Your task to perform on an android device: clear all cookies in the chrome app Image 0: 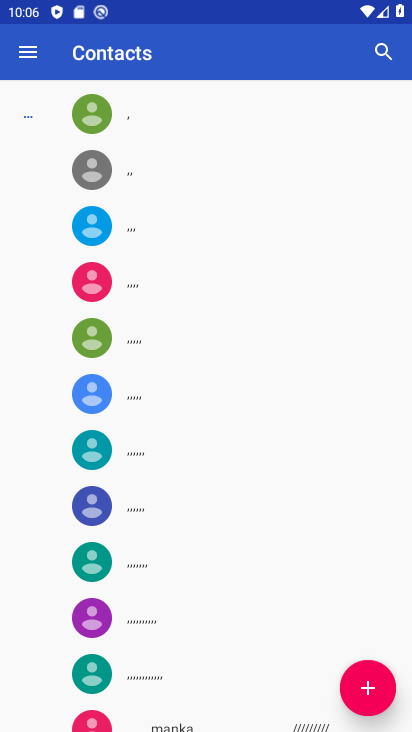
Step 0: press home button
Your task to perform on an android device: clear all cookies in the chrome app Image 1: 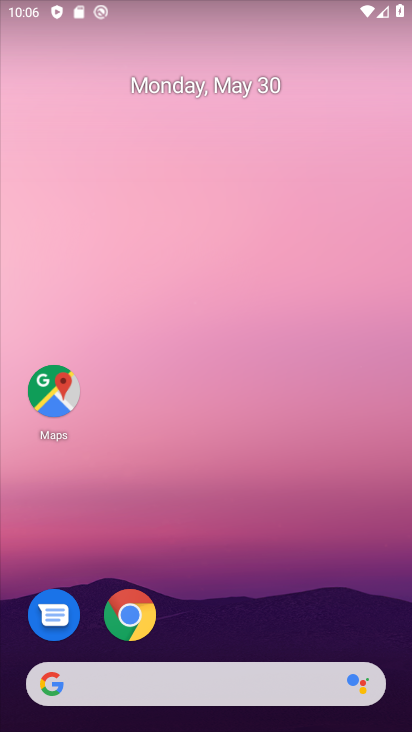
Step 1: click (127, 613)
Your task to perform on an android device: clear all cookies in the chrome app Image 2: 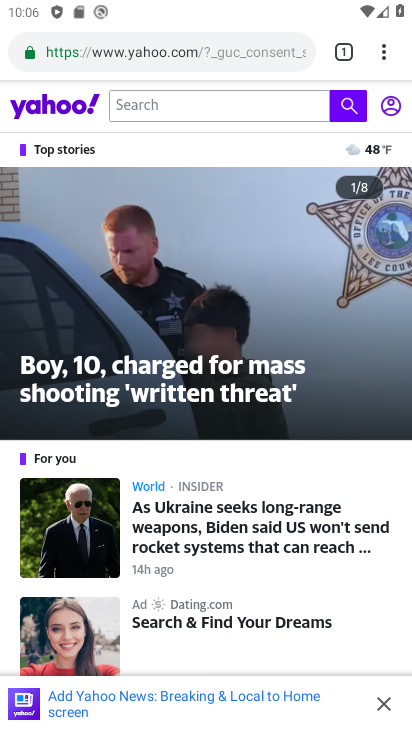
Step 2: click (383, 58)
Your task to perform on an android device: clear all cookies in the chrome app Image 3: 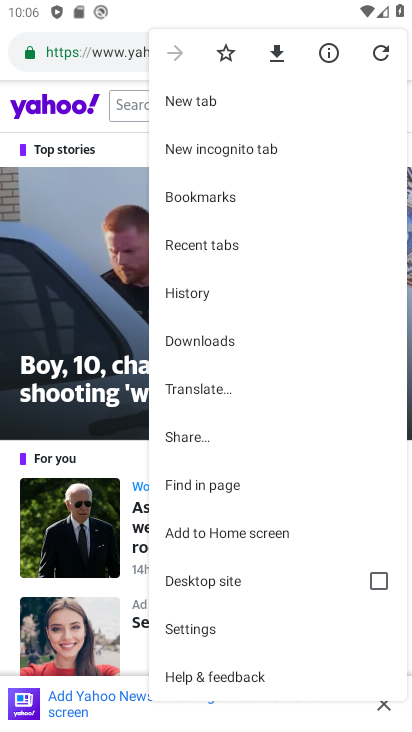
Step 3: click (193, 291)
Your task to perform on an android device: clear all cookies in the chrome app Image 4: 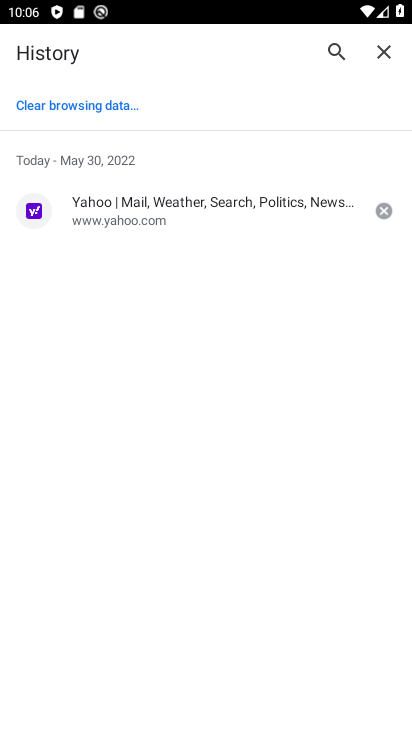
Step 4: click (89, 100)
Your task to perform on an android device: clear all cookies in the chrome app Image 5: 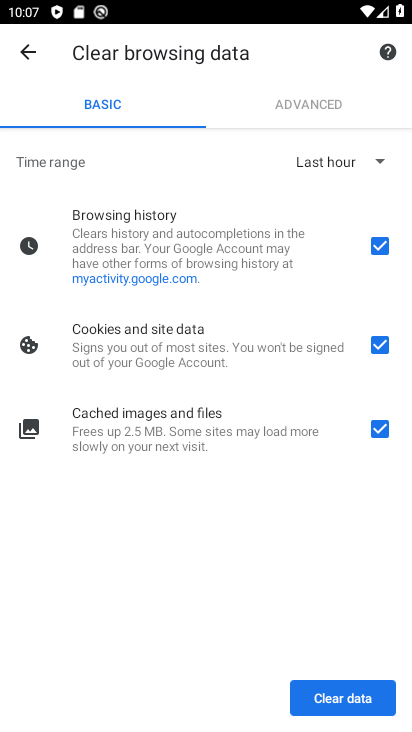
Step 5: click (377, 245)
Your task to perform on an android device: clear all cookies in the chrome app Image 6: 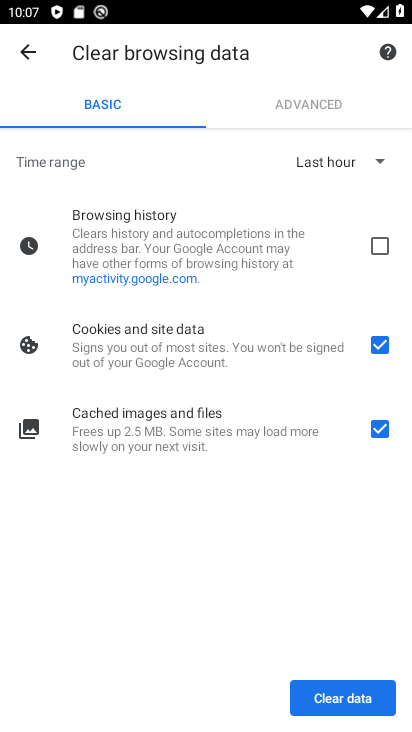
Step 6: click (381, 428)
Your task to perform on an android device: clear all cookies in the chrome app Image 7: 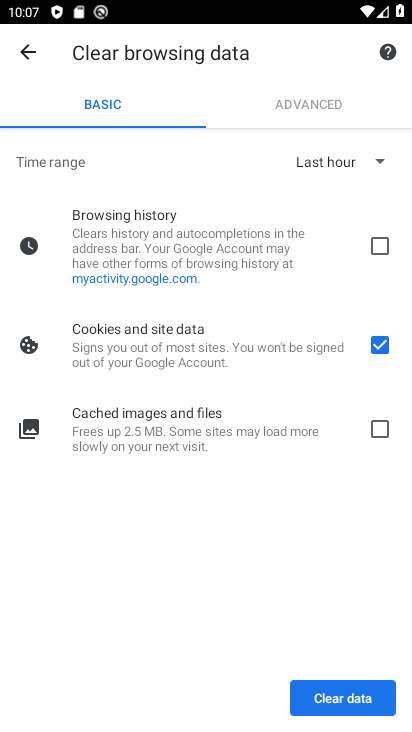
Step 7: click (353, 700)
Your task to perform on an android device: clear all cookies in the chrome app Image 8: 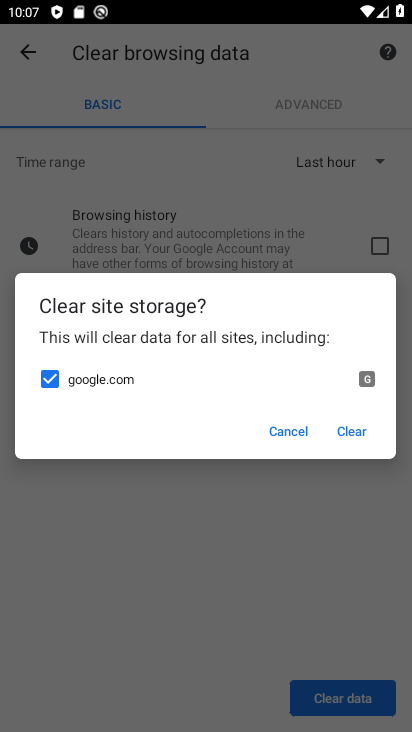
Step 8: click (347, 431)
Your task to perform on an android device: clear all cookies in the chrome app Image 9: 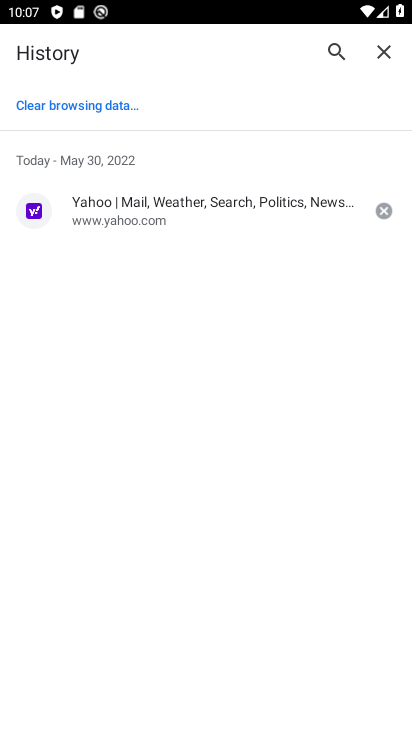
Step 9: task complete